Your task to perform on an android device: turn off airplane mode Image 0: 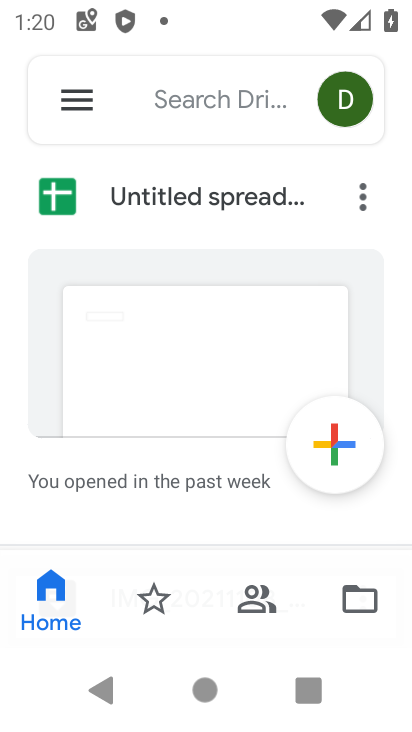
Step 0: press home button
Your task to perform on an android device: turn off airplane mode Image 1: 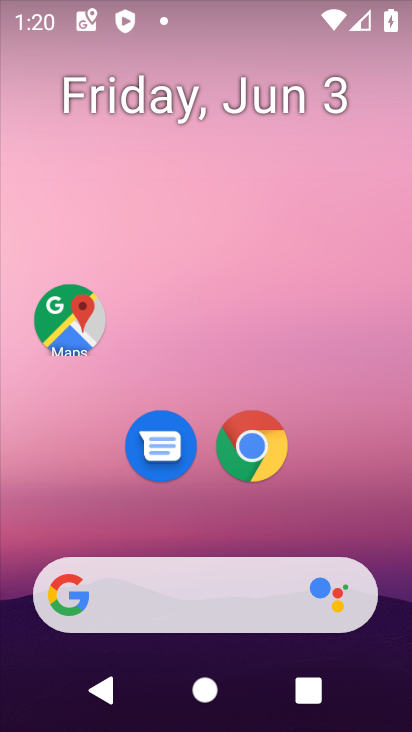
Step 1: drag from (259, 701) to (239, 3)
Your task to perform on an android device: turn off airplane mode Image 2: 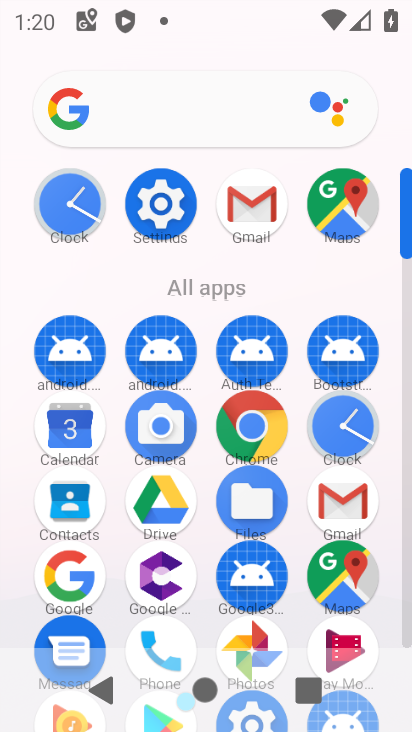
Step 2: click (159, 197)
Your task to perform on an android device: turn off airplane mode Image 3: 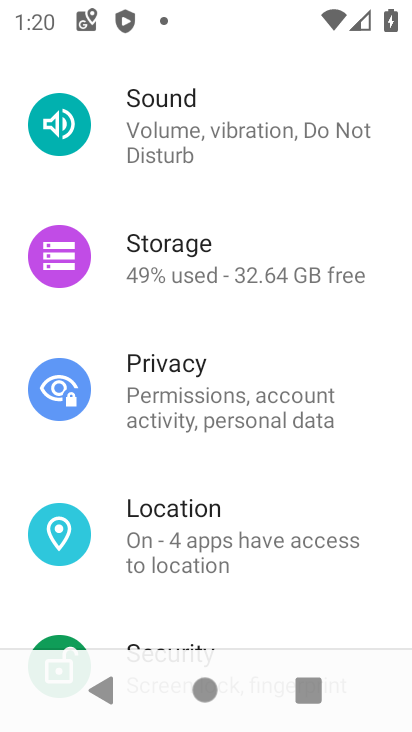
Step 3: drag from (240, 199) to (272, 628)
Your task to perform on an android device: turn off airplane mode Image 4: 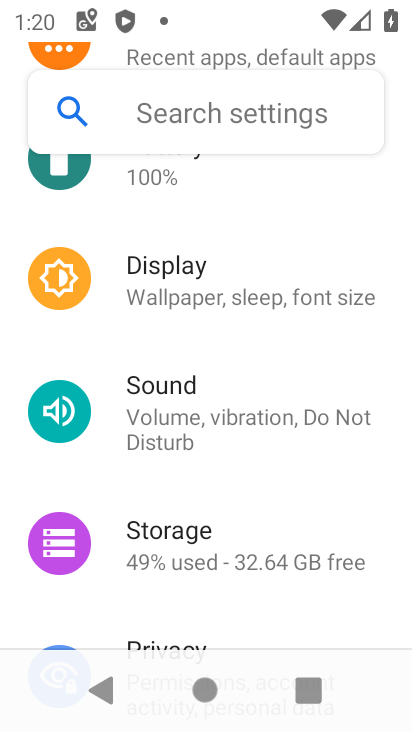
Step 4: drag from (312, 227) to (258, 662)
Your task to perform on an android device: turn off airplane mode Image 5: 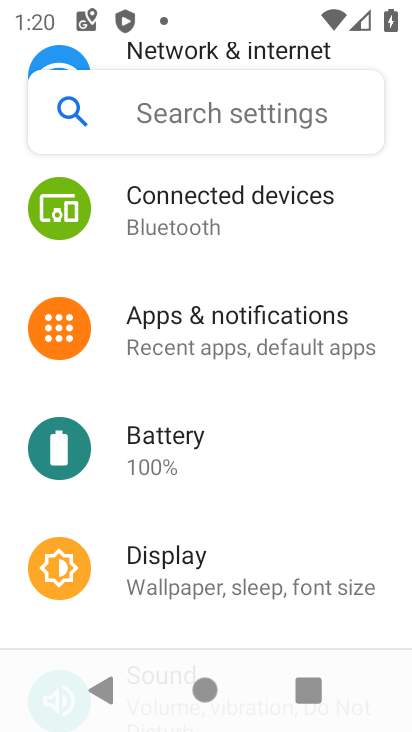
Step 5: drag from (364, 187) to (287, 703)
Your task to perform on an android device: turn off airplane mode Image 6: 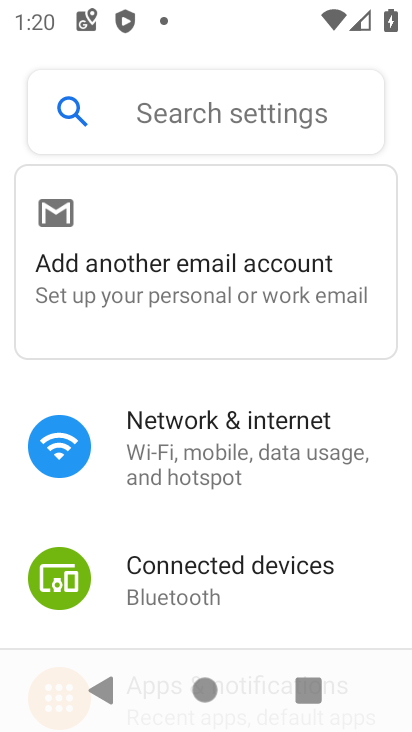
Step 6: click (201, 441)
Your task to perform on an android device: turn off airplane mode Image 7: 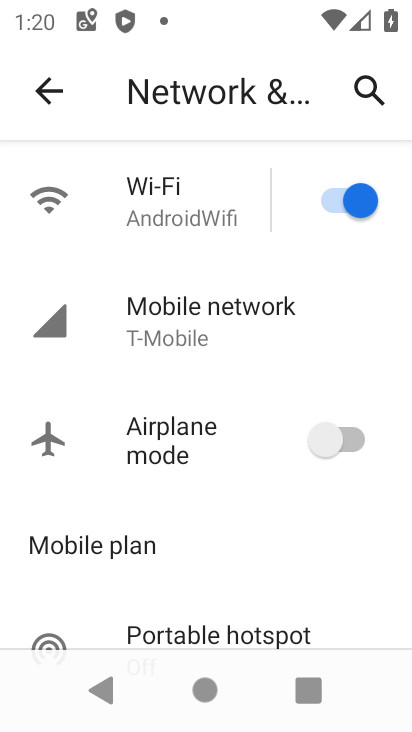
Step 7: task complete